Your task to perform on an android device: turn notification dots off Image 0: 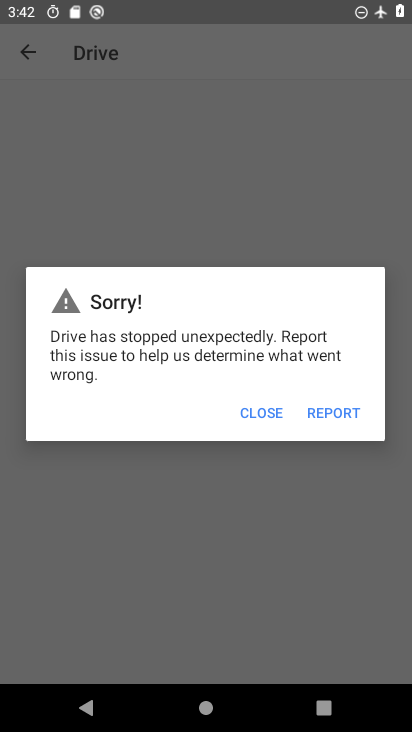
Step 0: click (131, 572)
Your task to perform on an android device: turn notification dots off Image 1: 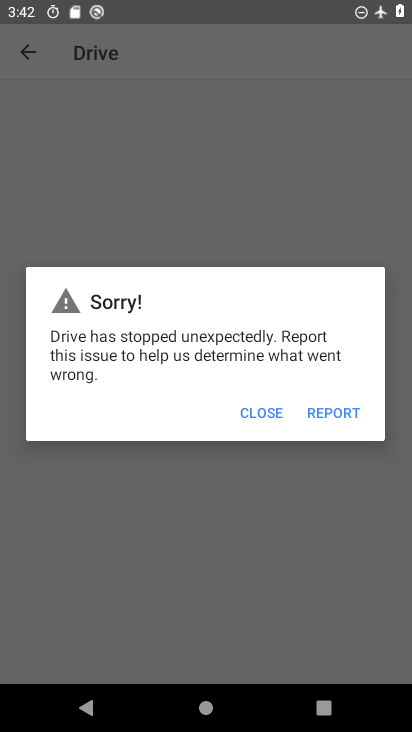
Step 1: press home button
Your task to perform on an android device: turn notification dots off Image 2: 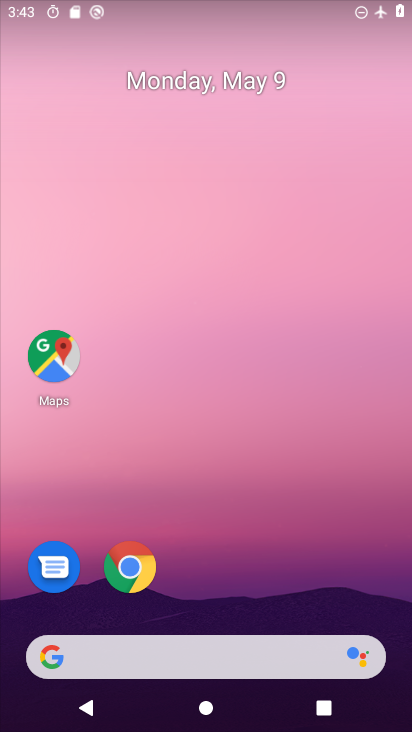
Step 2: drag from (238, 602) to (254, 138)
Your task to perform on an android device: turn notification dots off Image 3: 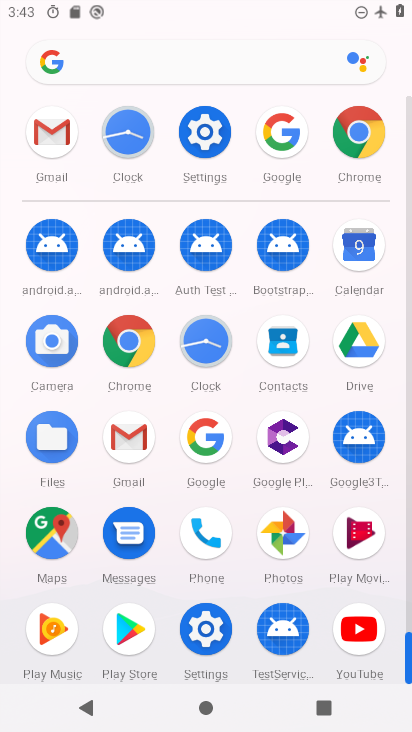
Step 3: click (204, 138)
Your task to perform on an android device: turn notification dots off Image 4: 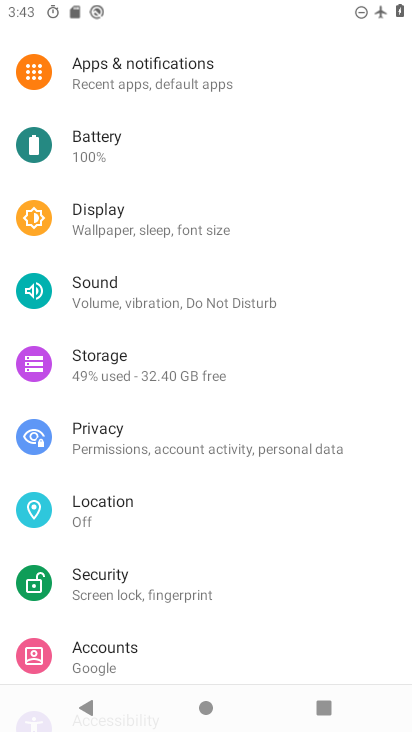
Step 4: click (162, 79)
Your task to perform on an android device: turn notification dots off Image 5: 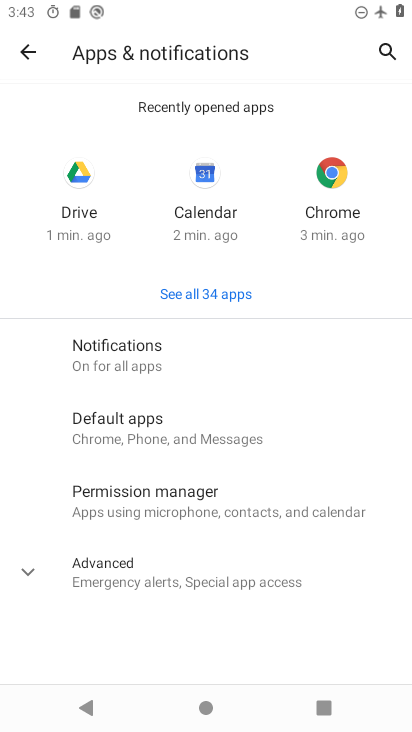
Step 5: click (223, 584)
Your task to perform on an android device: turn notification dots off Image 6: 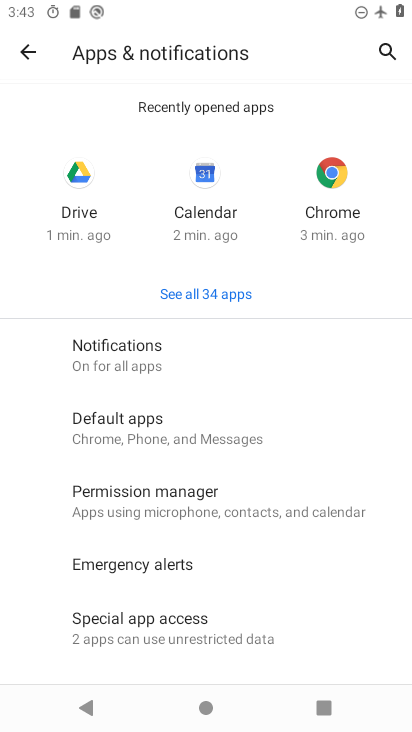
Step 6: click (172, 354)
Your task to perform on an android device: turn notification dots off Image 7: 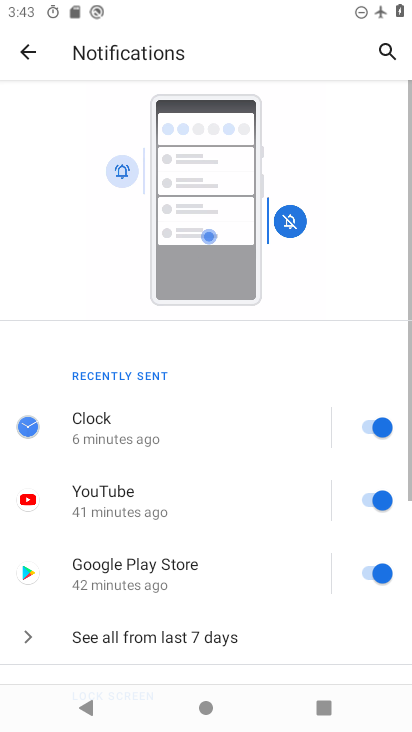
Step 7: drag from (268, 637) to (285, 152)
Your task to perform on an android device: turn notification dots off Image 8: 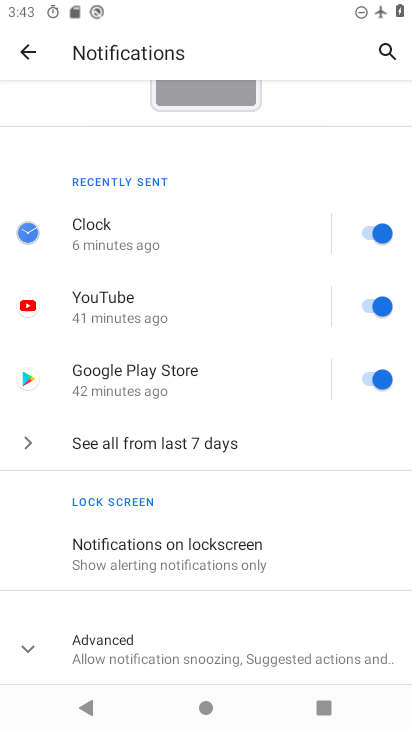
Step 8: click (199, 644)
Your task to perform on an android device: turn notification dots off Image 9: 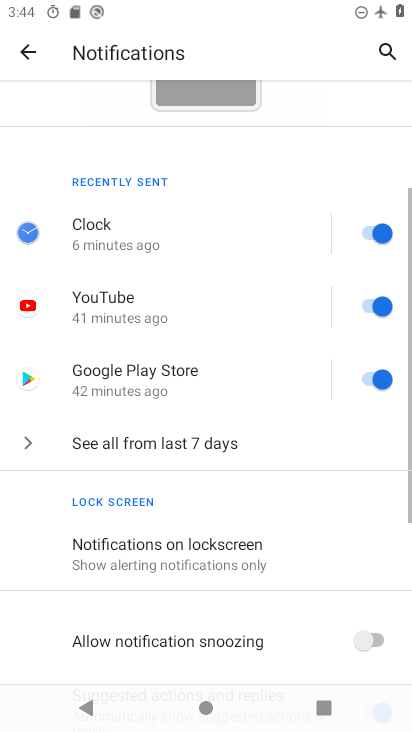
Step 9: drag from (213, 623) to (252, 256)
Your task to perform on an android device: turn notification dots off Image 10: 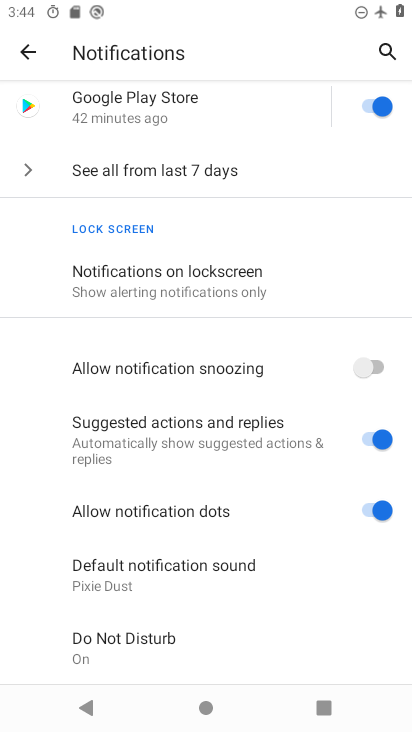
Step 10: click (365, 505)
Your task to perform on an android device: turn notification dots off Image 11: 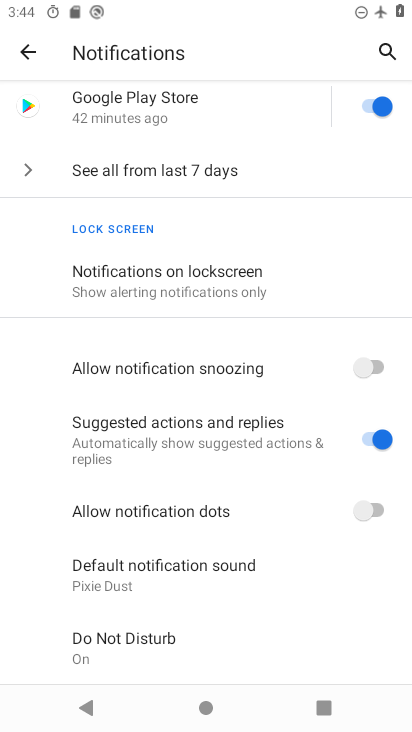
Step 11: task complete